Your task to perform on an android device: read, delete, or share a saved page in the chrome app Image 0: 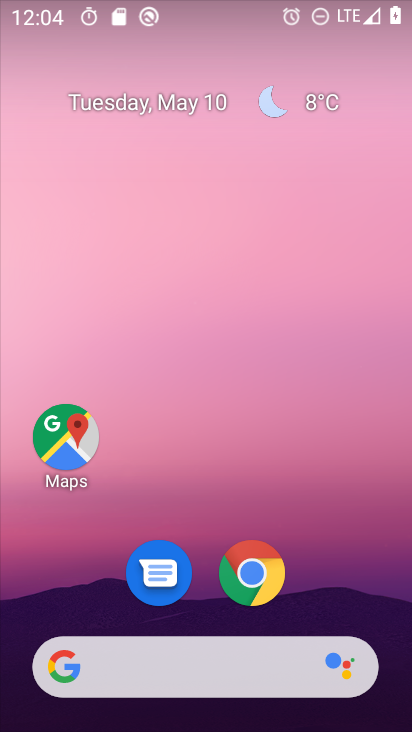
Step 0: click (252, 591)
Your task to perform on an android device: read, delete, or share a saved page in the chrome app Image 1: 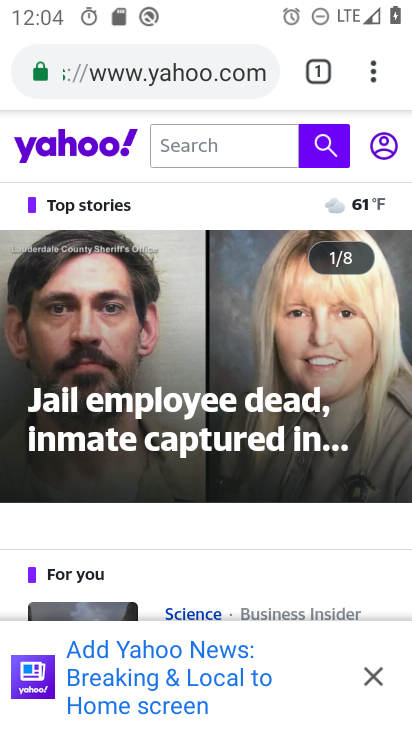
Step 1: task complete